Your task to perform on an android device: Open Chrome and go to settings Image 0: 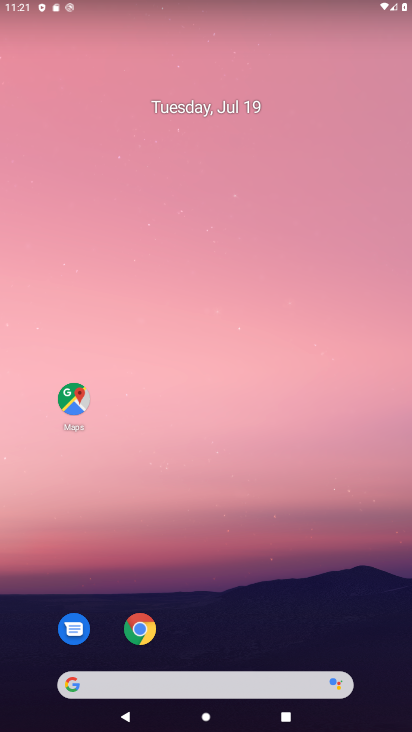
Step 0: drag from (316, 606) to (334, 75)
Your task to perform on an android device: Open Chrome and go to settings Image 1: 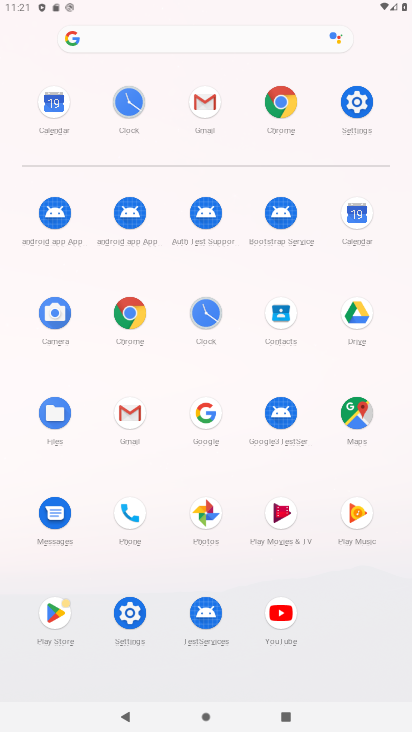
Step 1: click (289, 95)
Your task to perform on an android device: Open Chrome and go to settings Image 2: 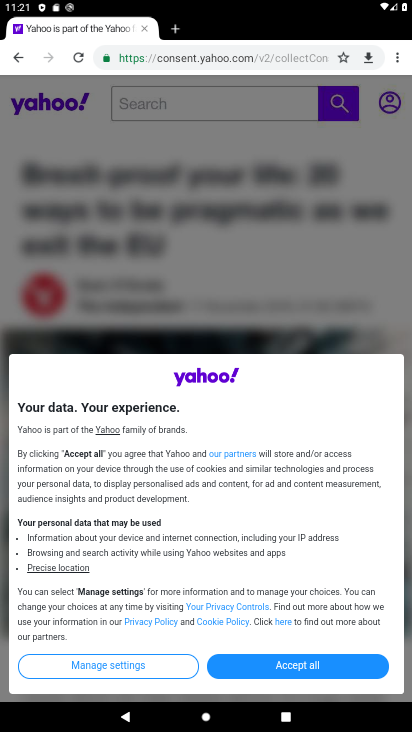
Step 2: task complete